Your task to perform on an android device: star an email in the gmail app Image 0: 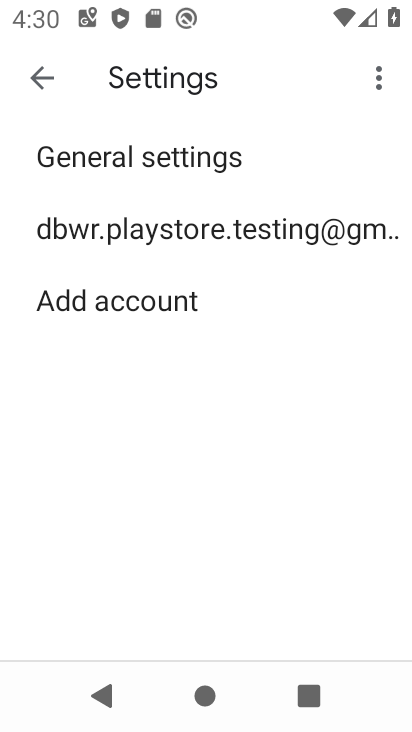
Step 0: press home button
Your task to perform on an android device: star an email in the gmail app Image 1: 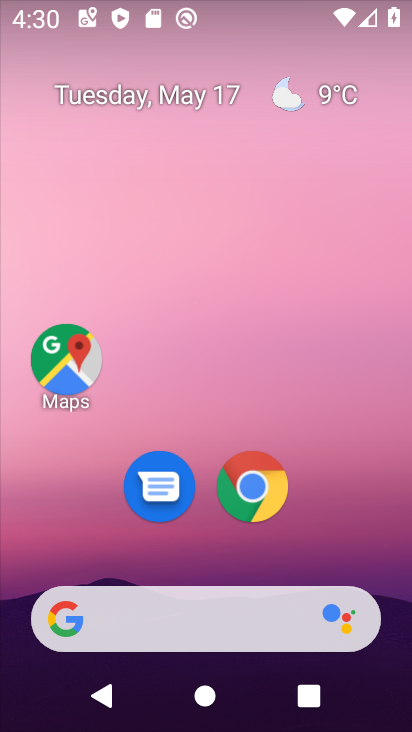
Step 1: drag from (361, 461) to (225, 116)
Your task to perform on an android device: star an email in the gmail app Image 2: 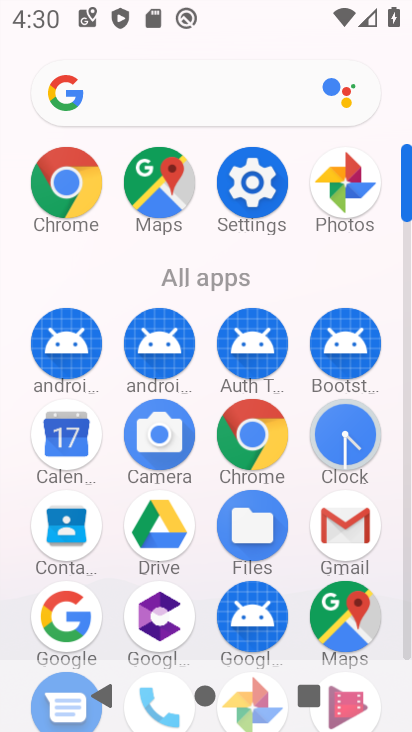
Step 2: click (346, 526)
Your task to perform on an android device: star an email in the gmail app Image 3: 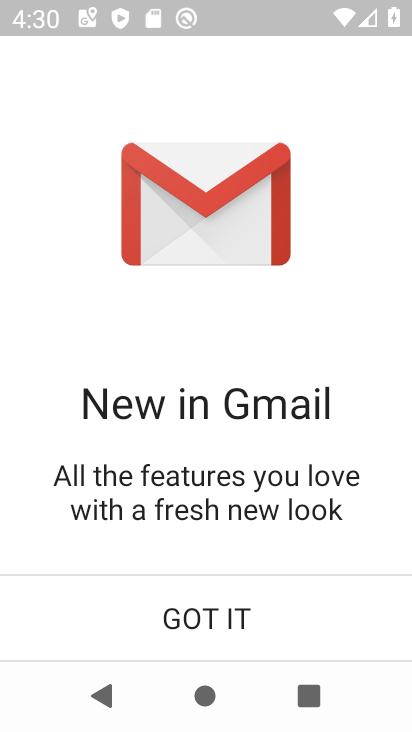
Step 3: click (195, 614)
Your task to perform on an android device: star an email in the gmail app Image 4: 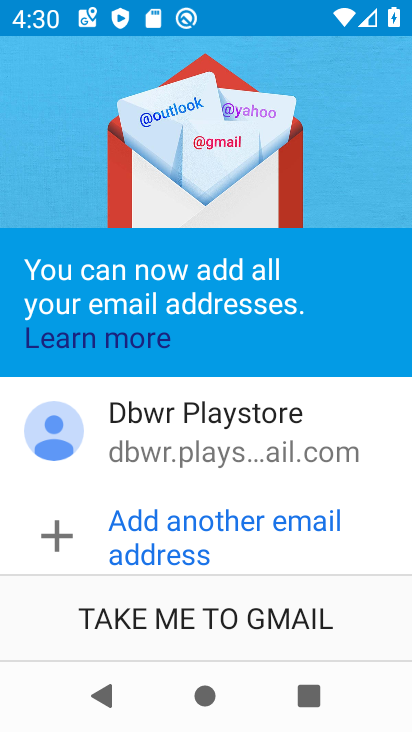
Step 4: click (202, 624)
Your task to perform on an android device: star an email in the gmail app Image 5: 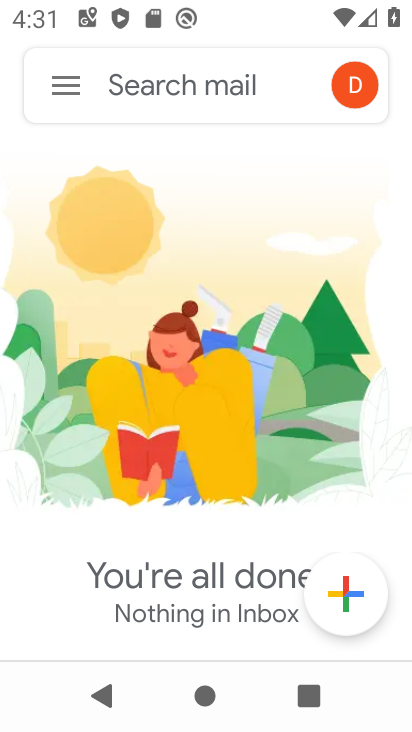
Step 5: click (65, 80)
Your task to perform on an android device: star an email in the gmail app Image 6: 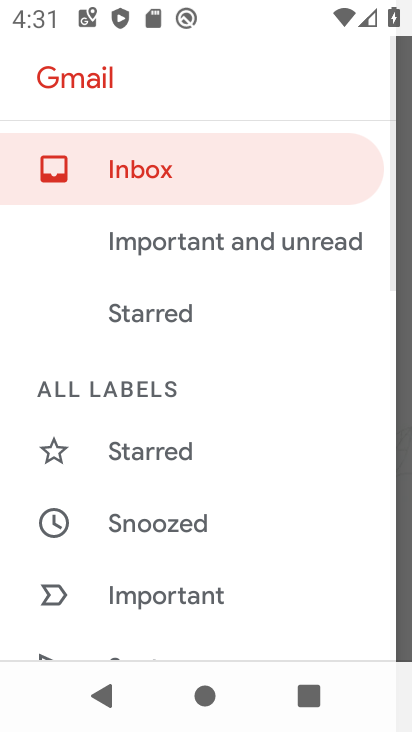
Step 6: drag from (282, 575) to (258, 117)
Your task to perform on an android device: star an email in the gmail app Image 7: 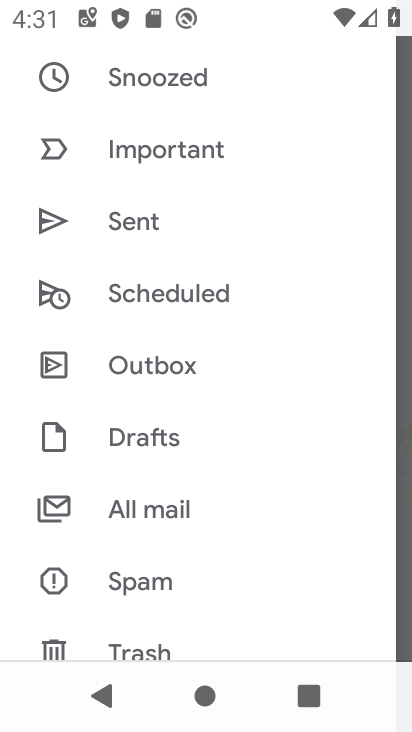
Step 7: click (249, 512)
Your task to perform on an android device: star an email in the gmail app Image 8: 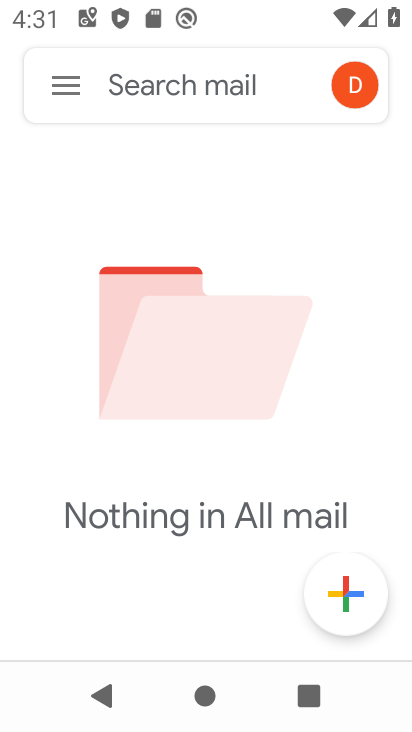
Step 8: task complete